Your task to perform on an android device: open app "Microsoft Authenticator" Image 0: 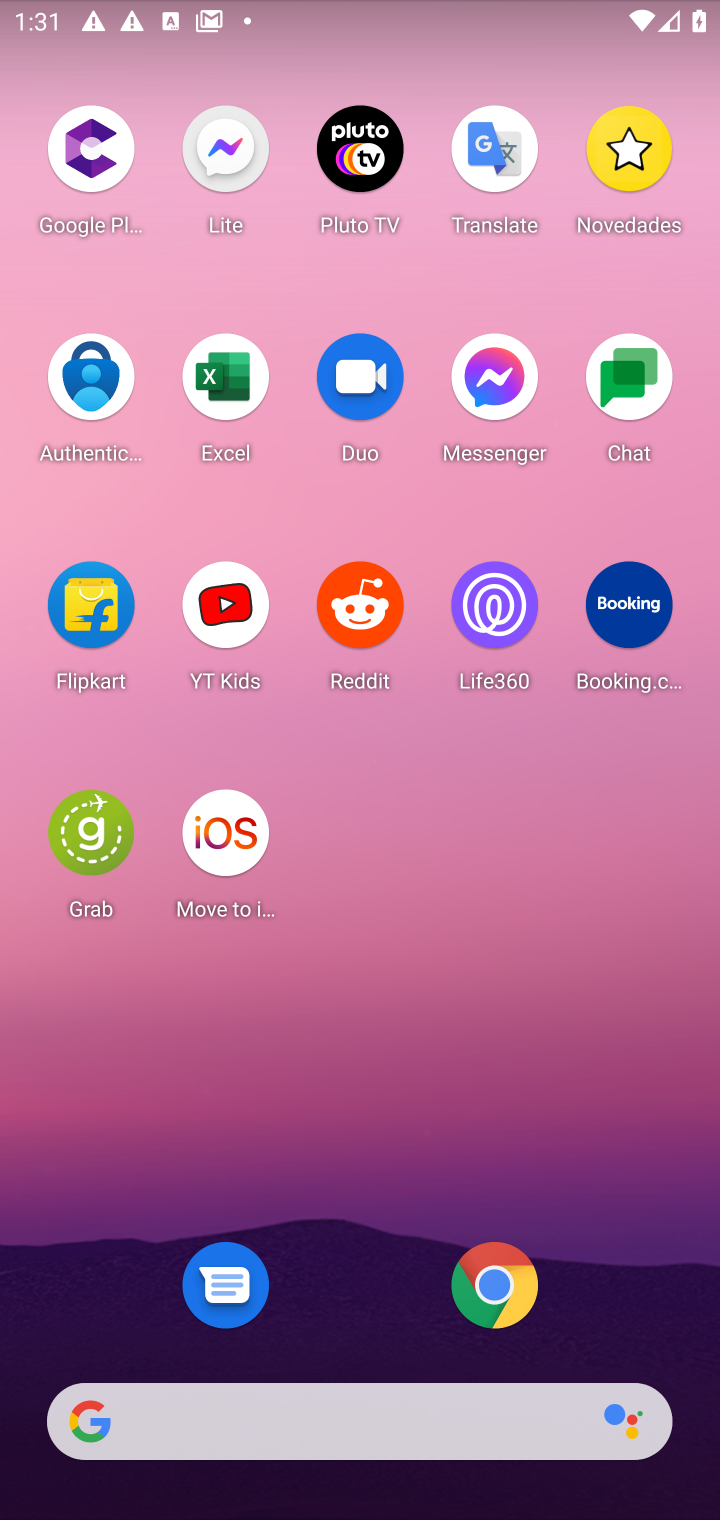
Step 0: drag from (581, 702) to (624, 234)
Your task to perform on an android device: open app "Microsoft Authenticator" Image 1: 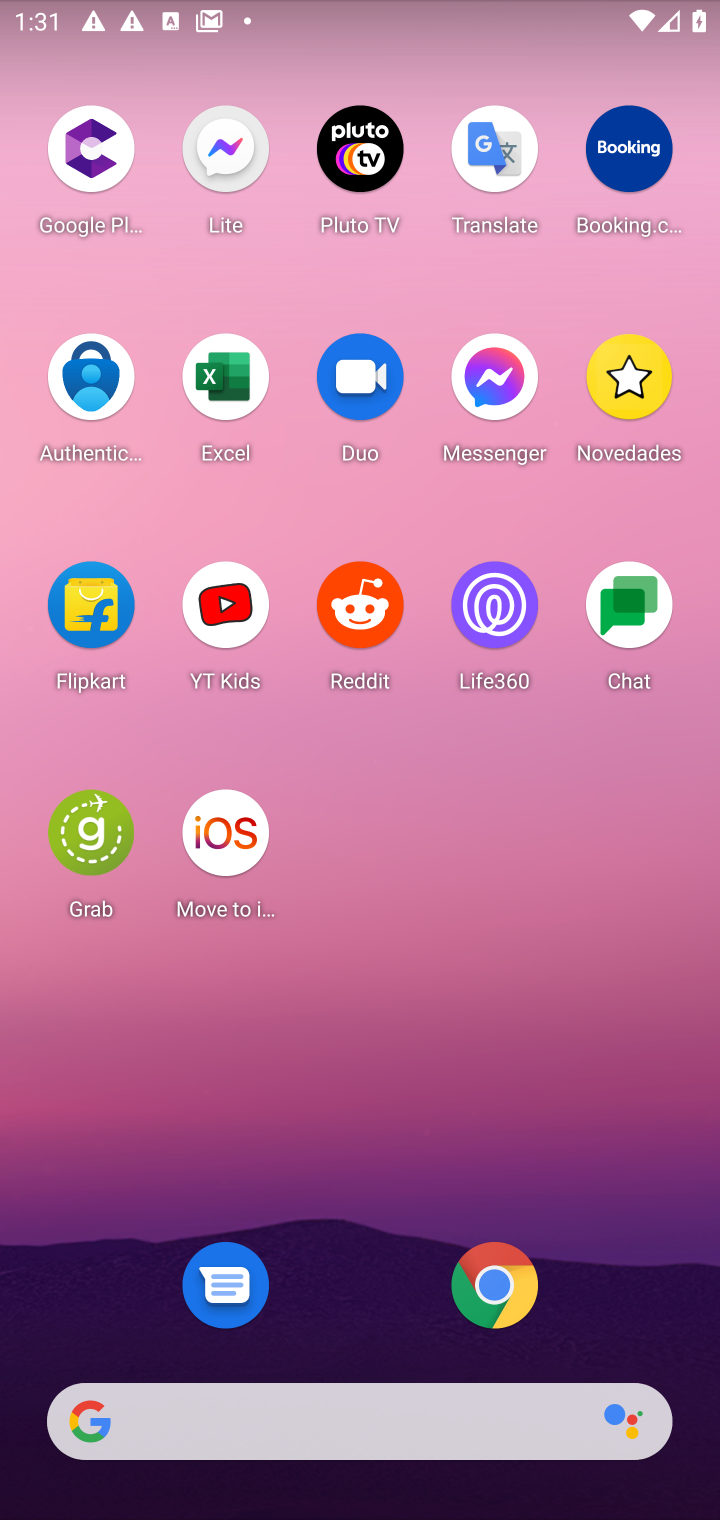
Step 1: drag from (558, 1156) to (567, 123)
Your task to perform on an android device: open app "Microsoft Authenticator" Image 2: 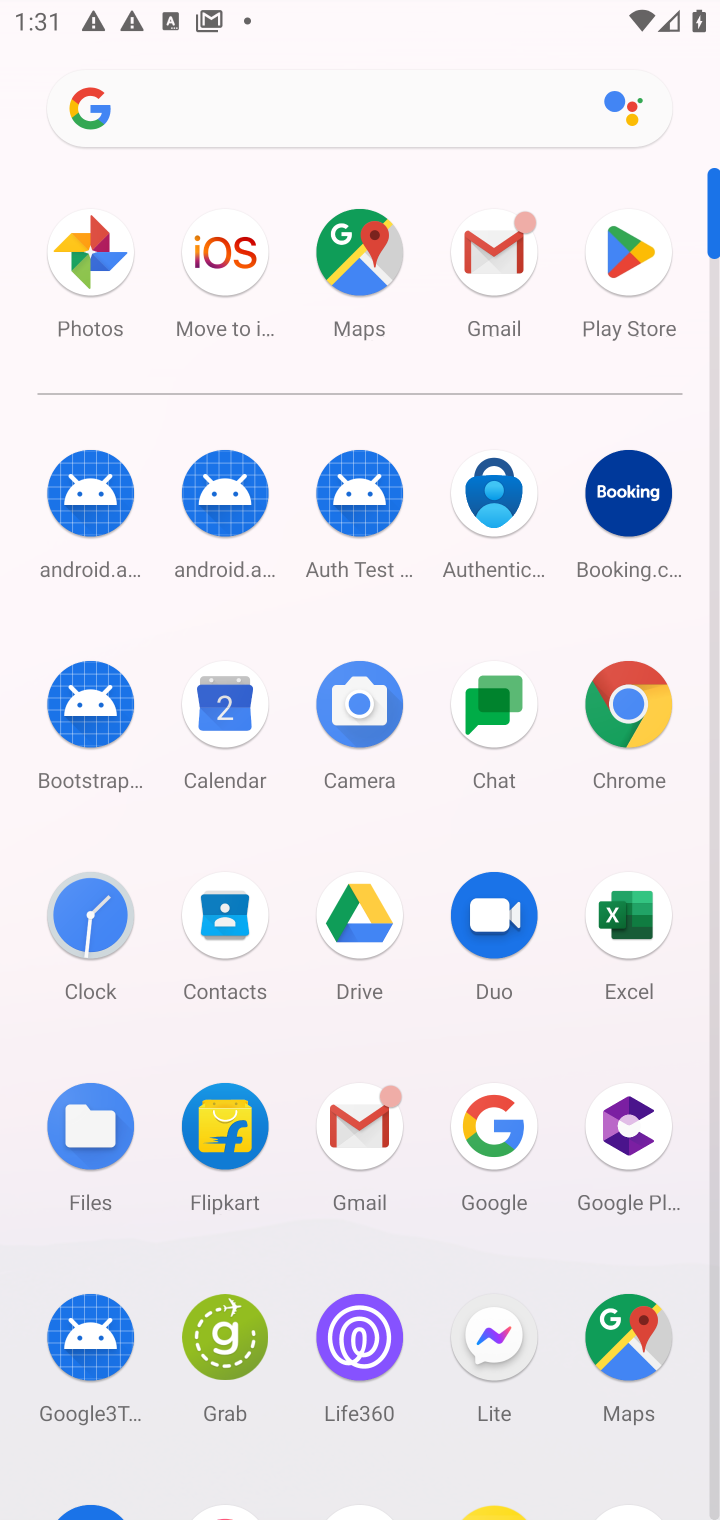
Step 2: drag from (408, 1100) to (413, 343)
Your task to perform on an android device: open app "Microsoft Authenticator" Image 3: 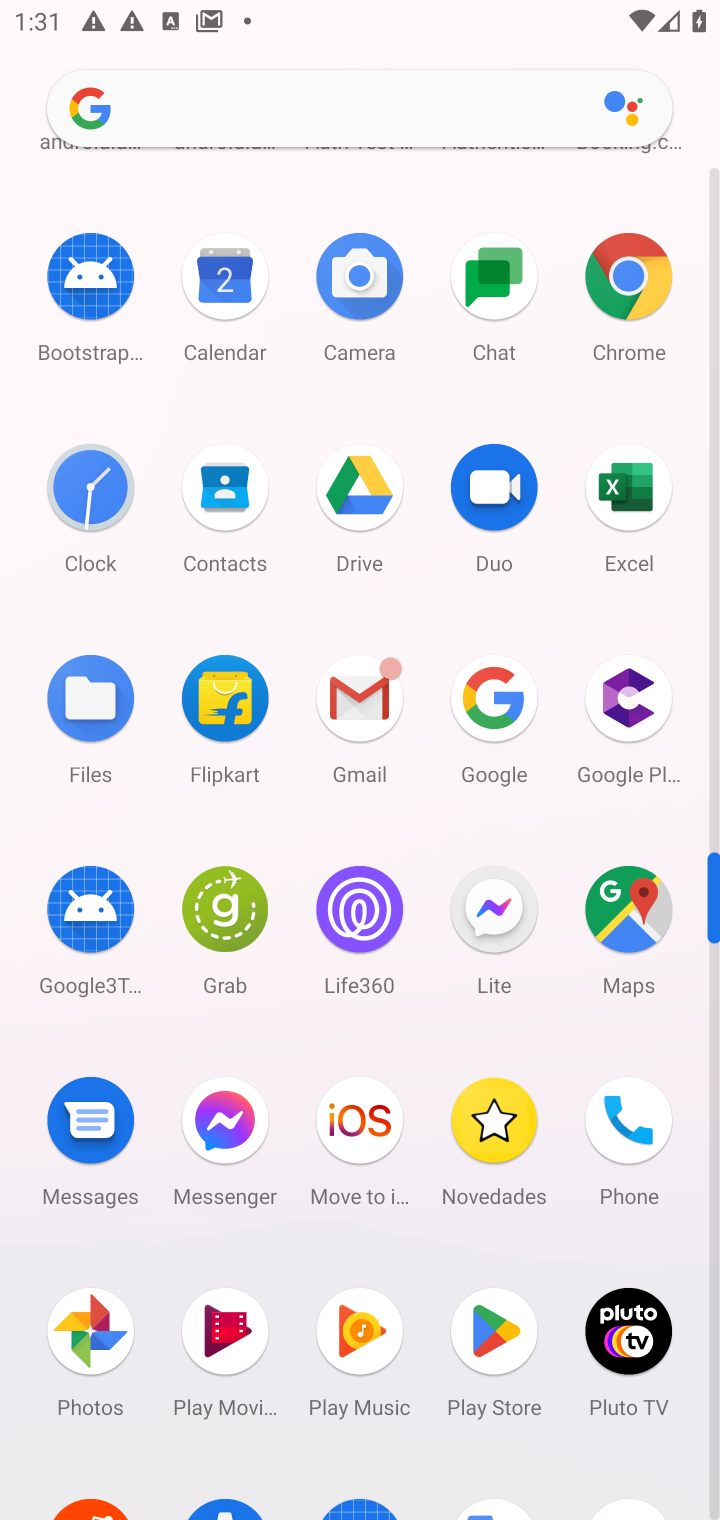
Step 3: click (509, 1328)
Your task to perform on an android device: open app "Microsoft Authenticator" Image 4: 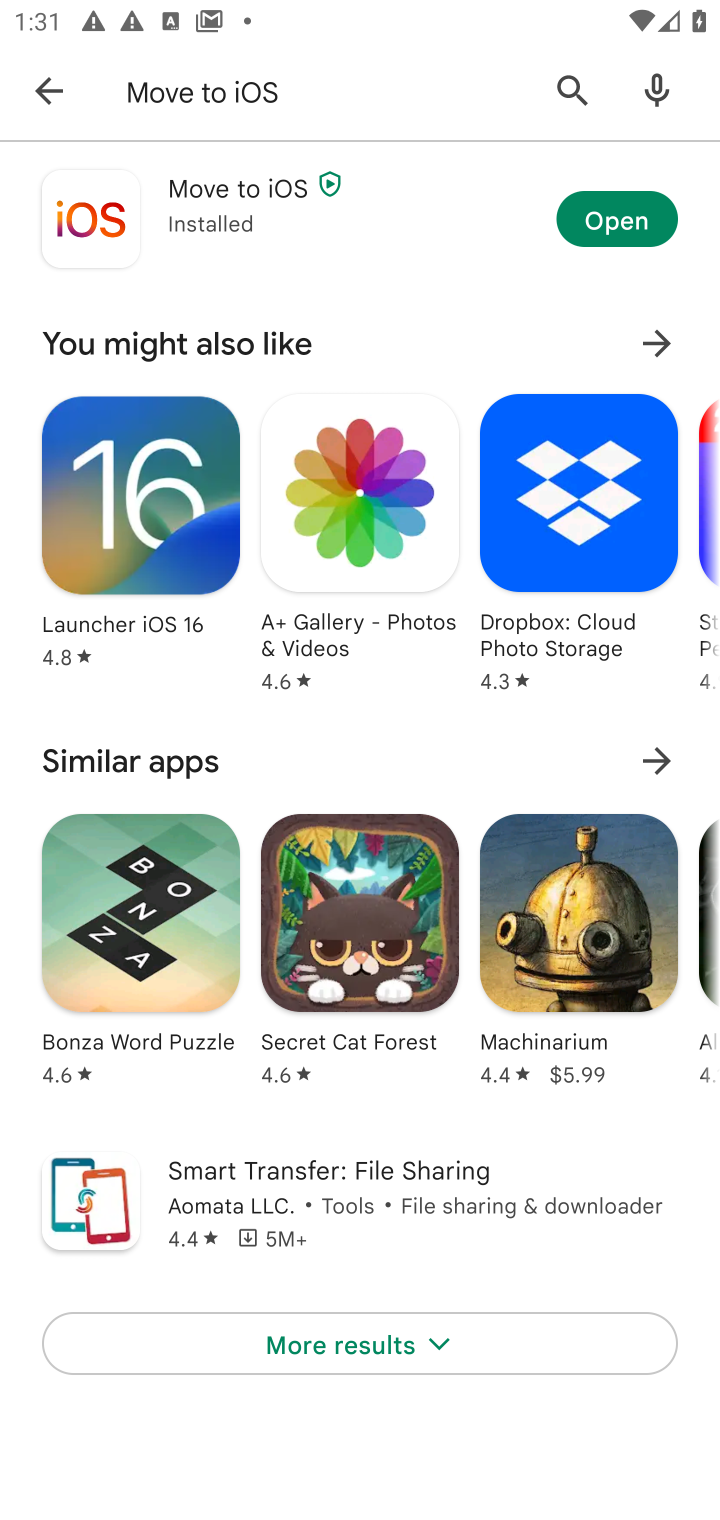
Step 4: click (352, 119)
Your task to perform on an android device: open app "Microsoft Authenticator" Image 5: 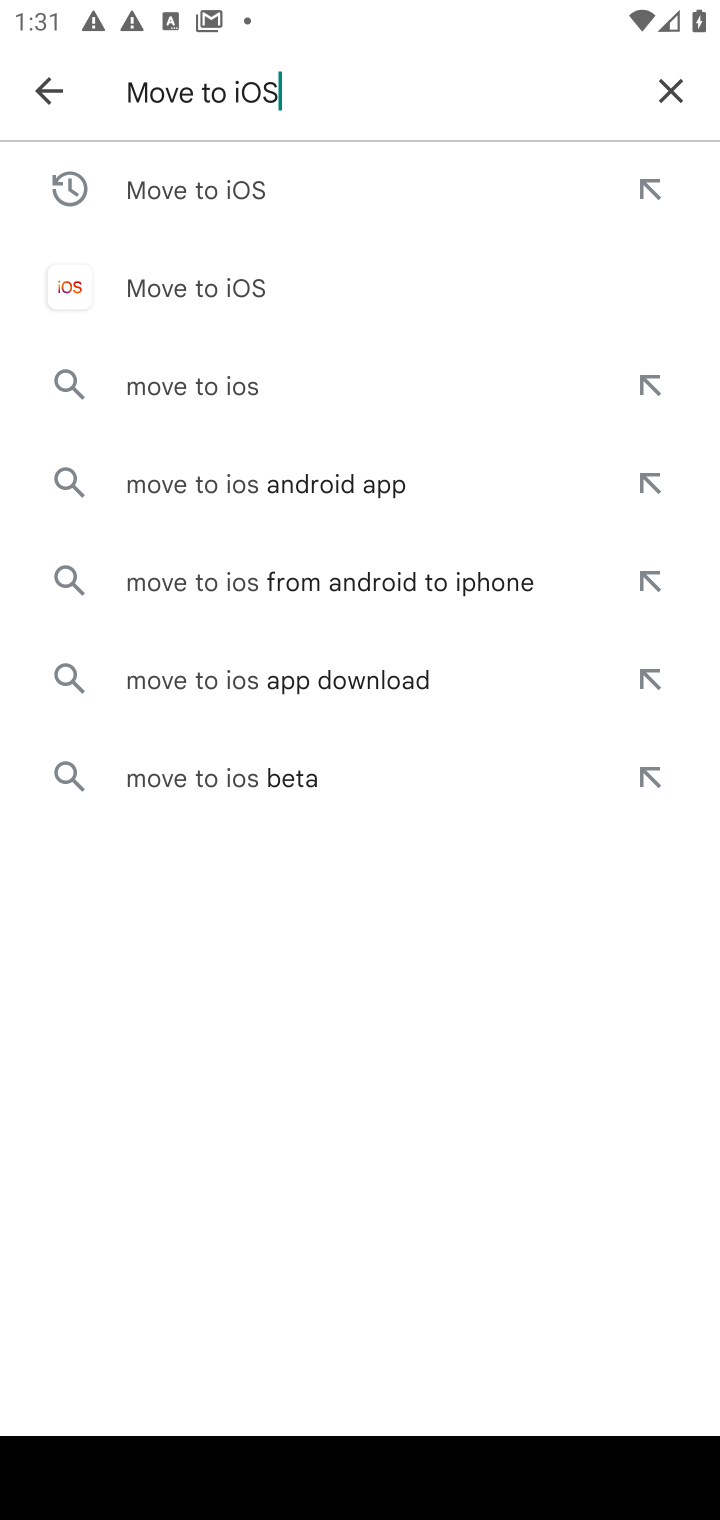
Step 5: click (672, 82)
Your task to perform on an android device: open app "Microsoft Authenticator" Image 6: 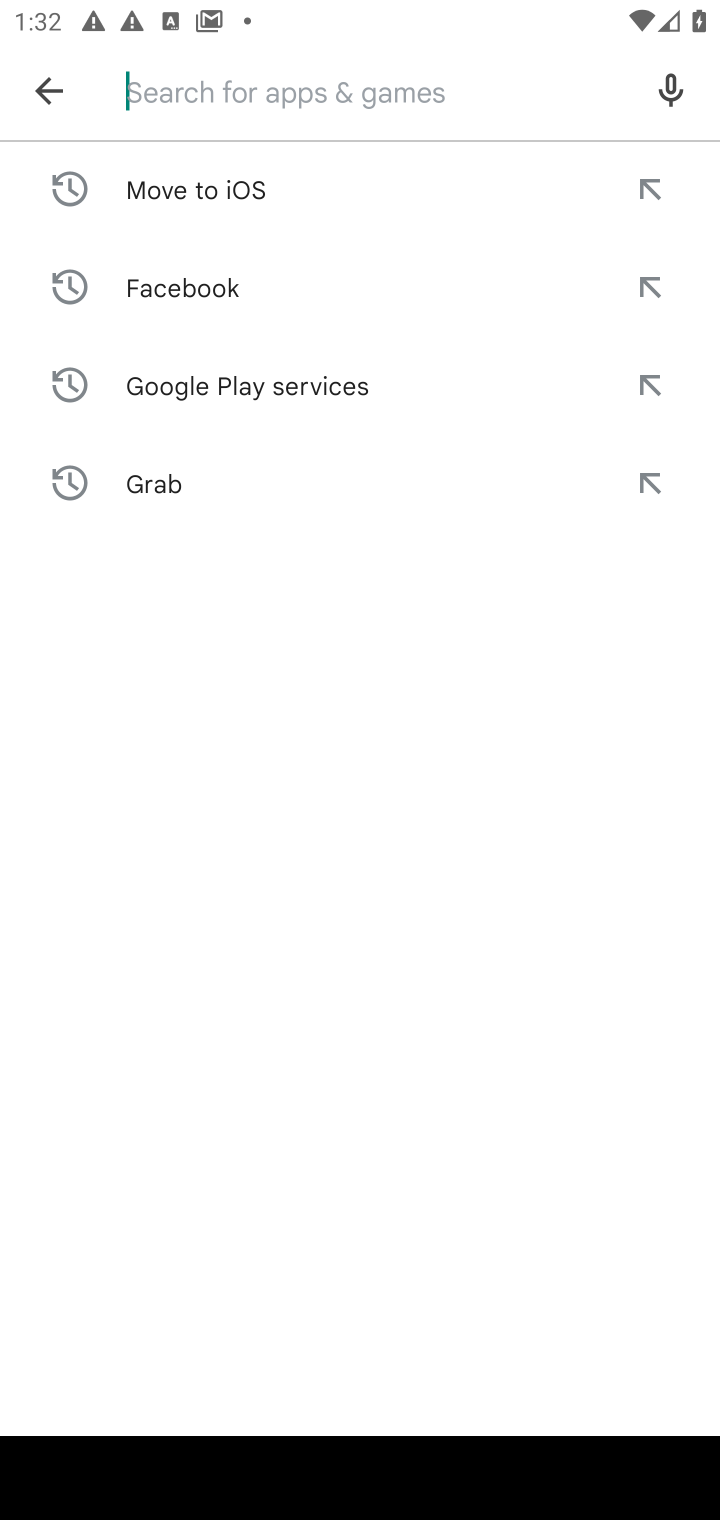
Step 6: type "Microsoft Authenticator"
Your task to perform on an android device: open app "Microsoft Authenticator" Image 7: 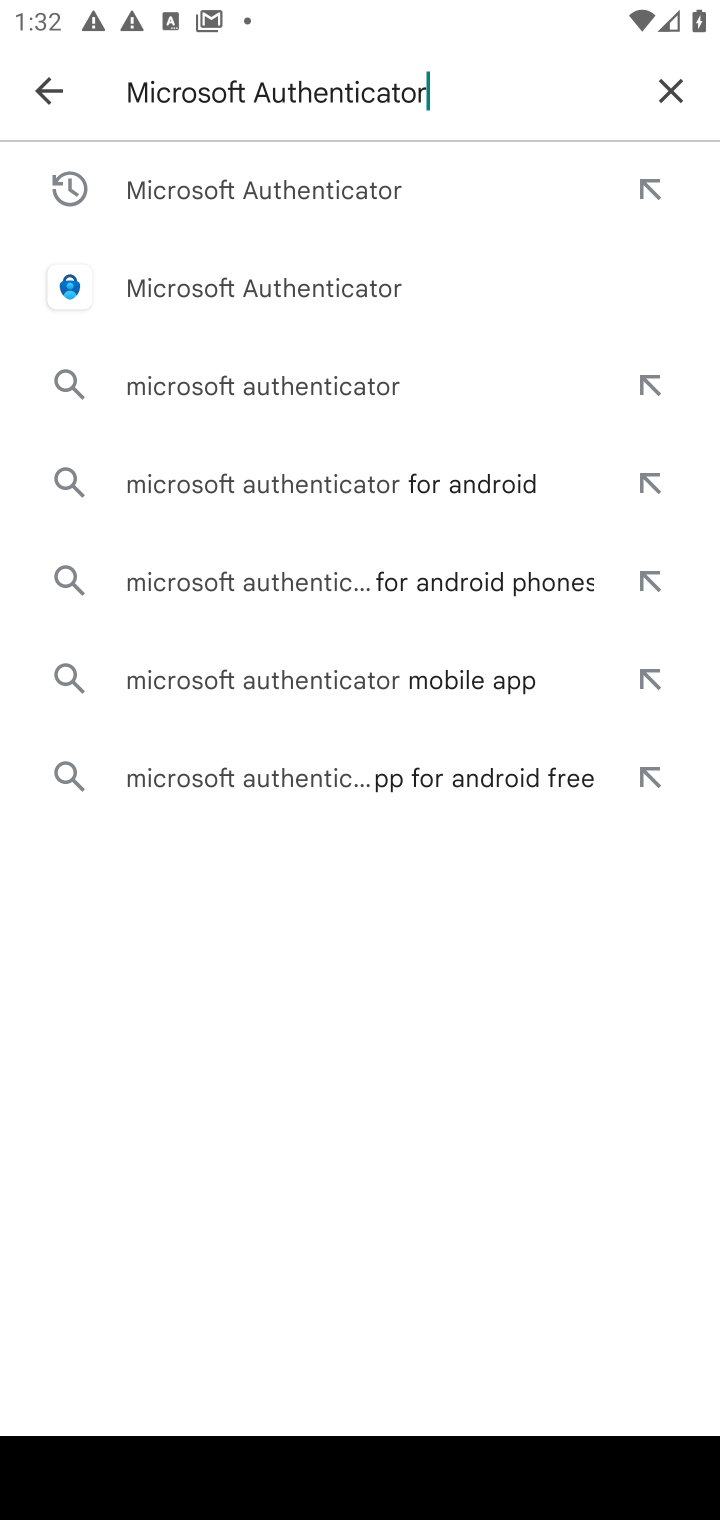
Step 7: press enter
Your task to perform on an android device: open app "Microsoft Authenticator" Image 8: 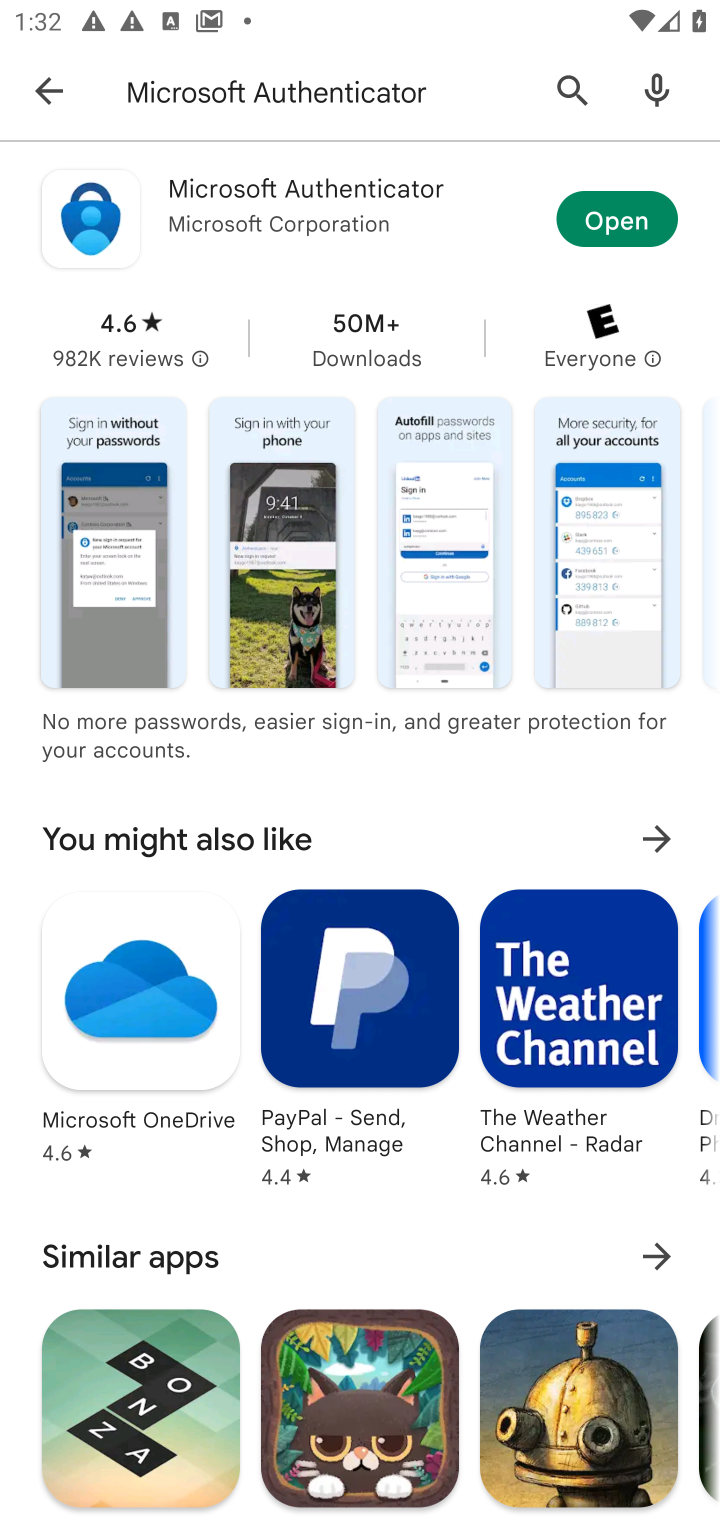
Step 8: click (646, 228)
Your task to perform on an android device: open app "Microsoft Authenticator" Image 9: 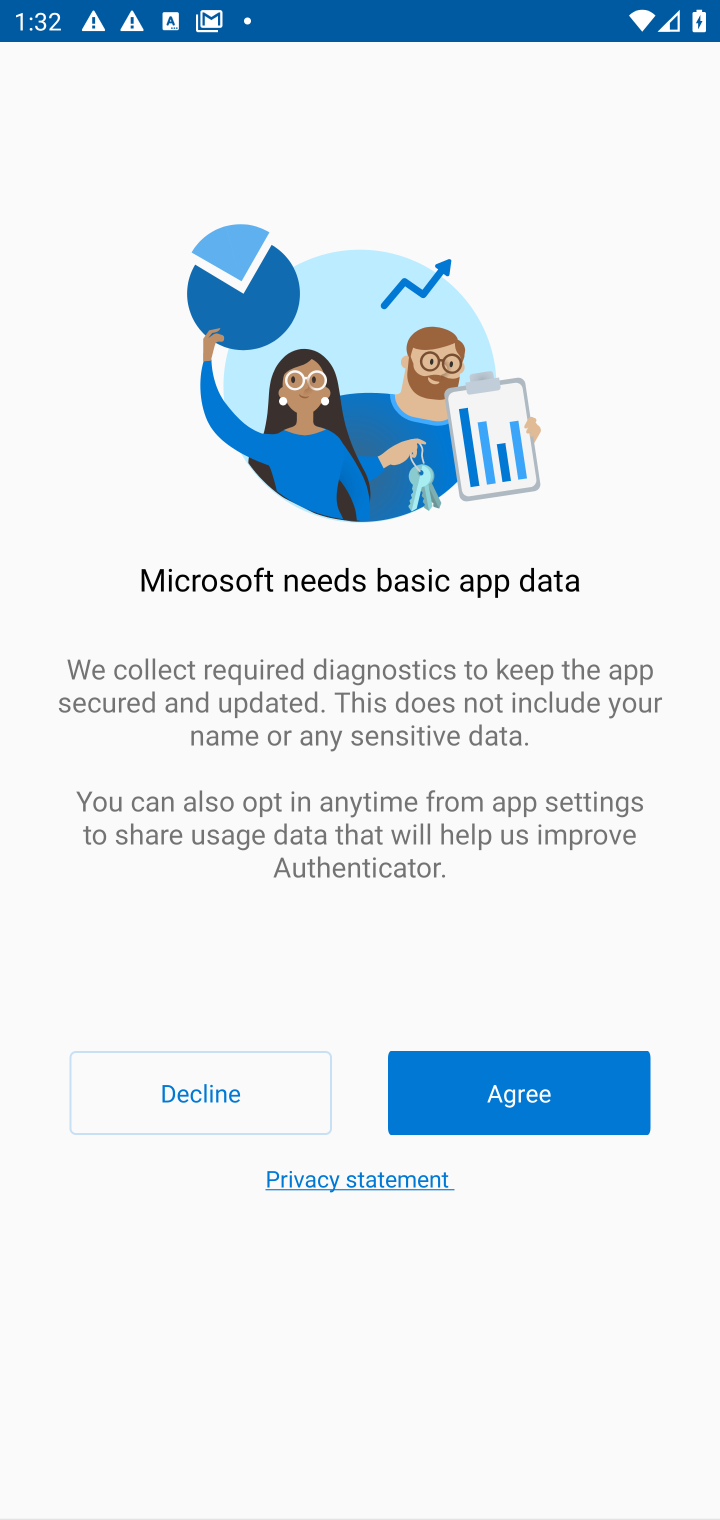
Step 9: task complete